Your task to perform on an android device: toggle translation in the chrome app Image 0: 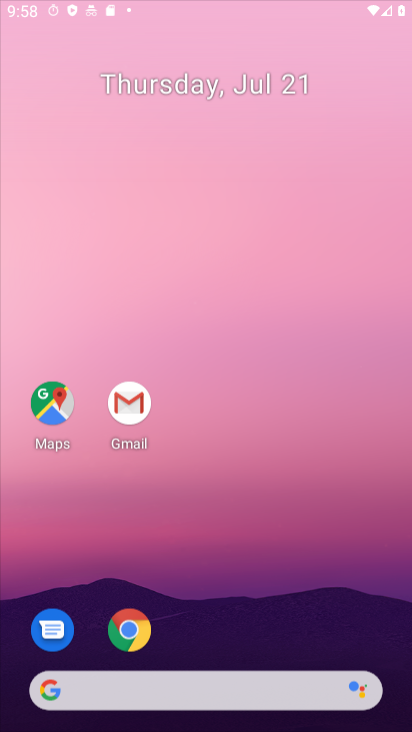
Step 0: click (332, 239)
Your task to perform on an android device: toggle translation in the chrome app Image 1: 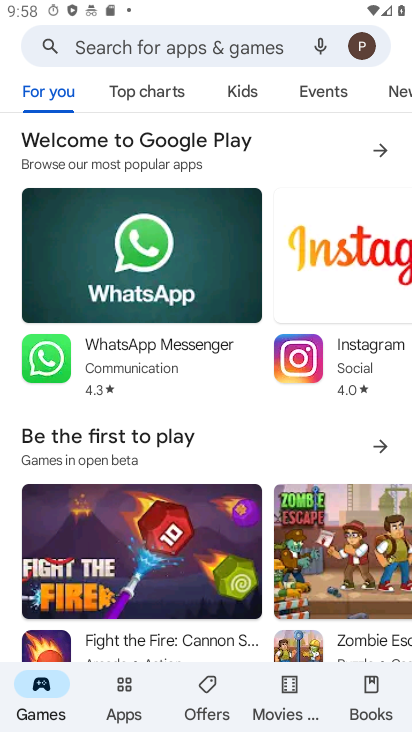
Step 1: press back button
Your task to perform on an android device: toggle translation in the chrome app Image 2: 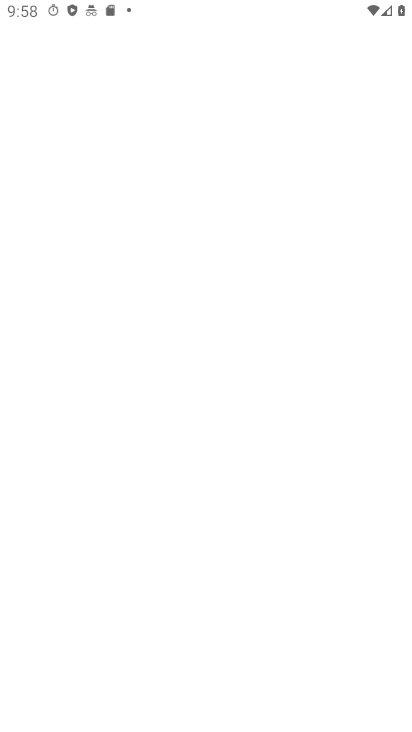
Step 2: press back button
Your task to perform on an android device: toggle translation in the chrome app Image 3: 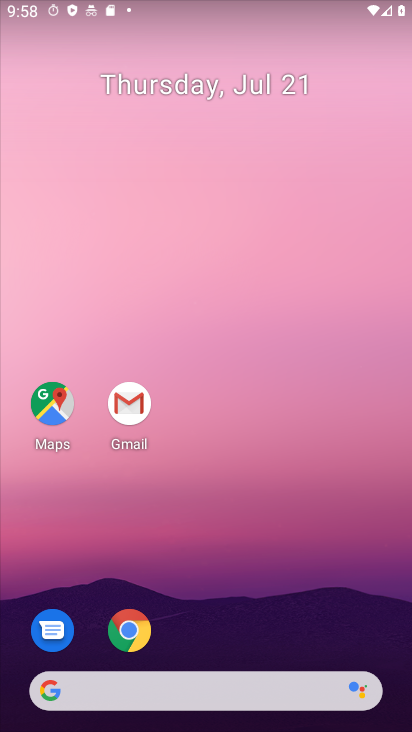
Step 3: drag from (266, 599) to (263, 268)
Your task to perform on an android device: toggle translation in the chrome app Image 4: 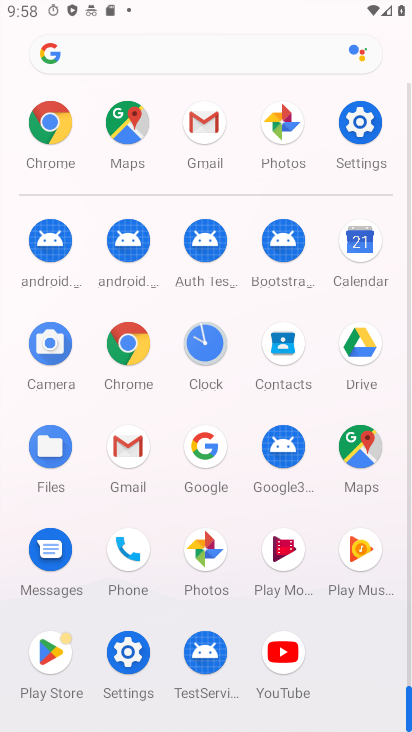
Step 4: click (64, 123)
Your task to perform on an android device: toggle translation in the chrome app Image 5: 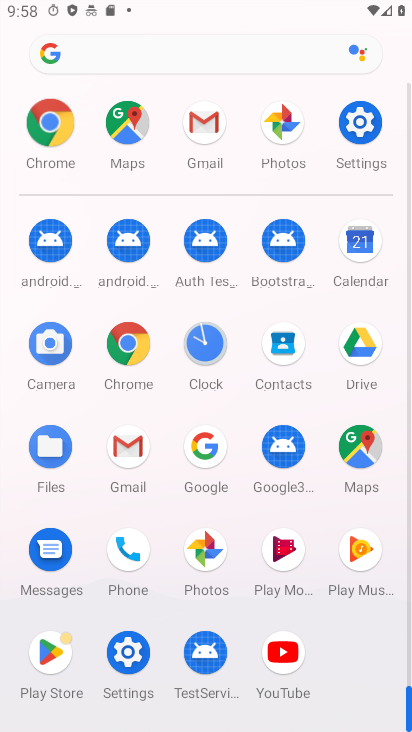
Step 5: click (67, 120)
Your task to perform on an android device: toggle translation in the chrome app Image 6: 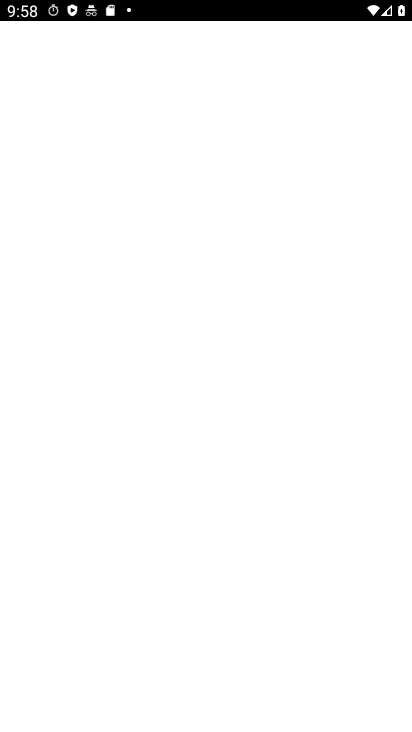
Step 6: click (75, 122)
Your task to perform on an android device: toggle translation in the chrome app Image 7: 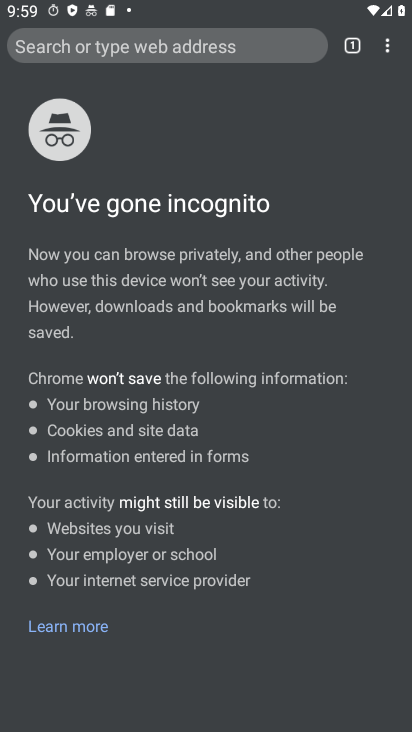
Step 7: drag from (390, 49) to (225, 340)
Your task to perform on an android device: toggle translation in the chrome app Image 8: 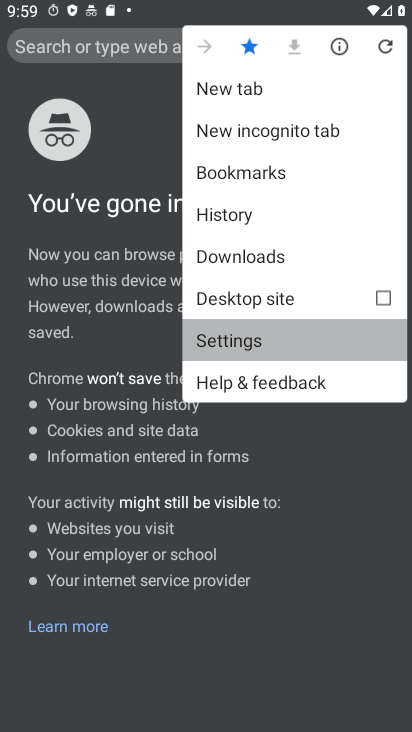
Step 8: click (231, 338)
Your task to perform on an android device: toggle translation in the chrome app Image 9: 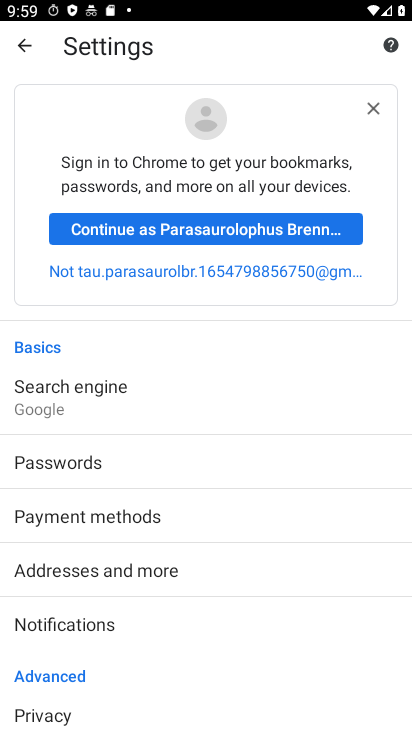
Step 9: drag from (119, 541) to (119, 113)
Your task to perform on an android device: toggle translation in the chrome app Image 10: 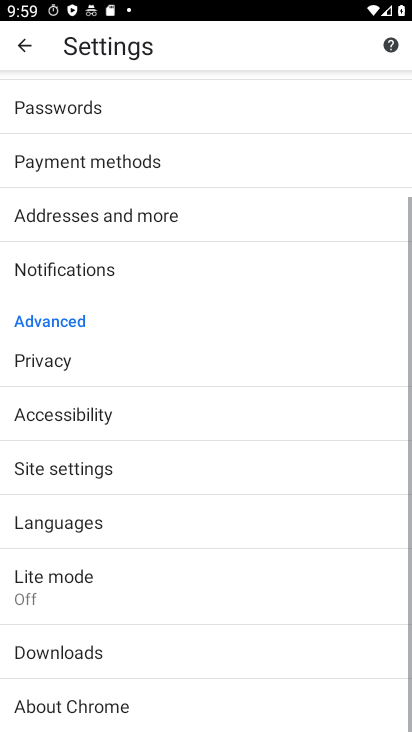
Step 10: drag from (198, 561) to (155, 110)
Your task to perform on an android device: toggle translation in the chrome app Image 11: 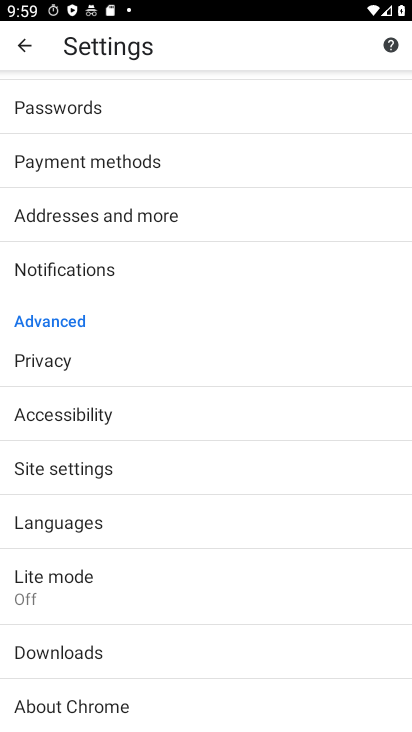
Step 11: click (101, 515)
Your task to perform on an android device: toggle translation in the chrome app Image 12: 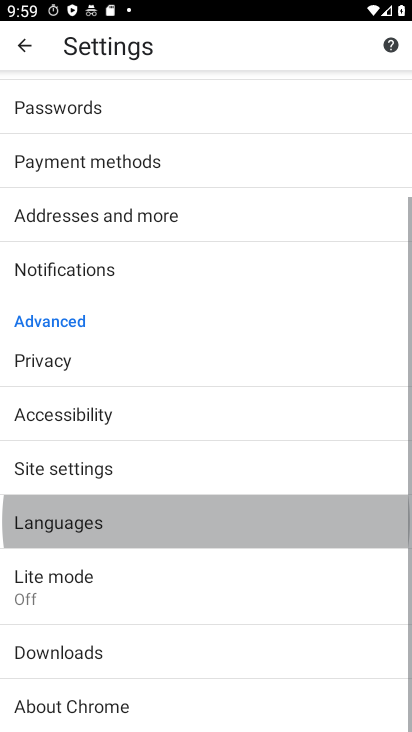
Step 12: click (108, 520)
Your task to perform on an android device: toggle translation in the chrome app Image 13: 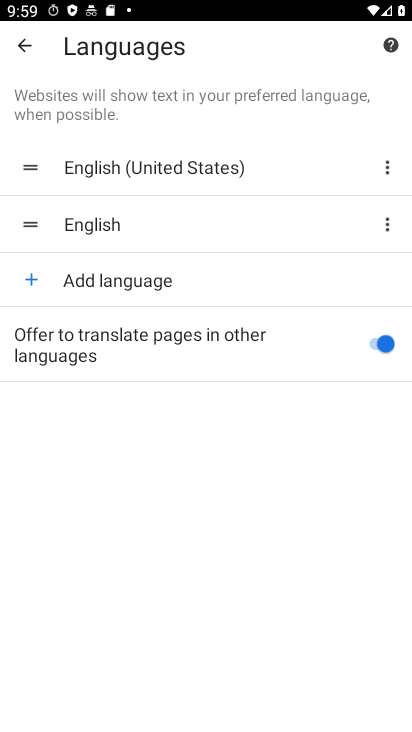
Step 13: click (384, 338)
Your task to perform on an android device: toggle translation in the chrome app Image 14: 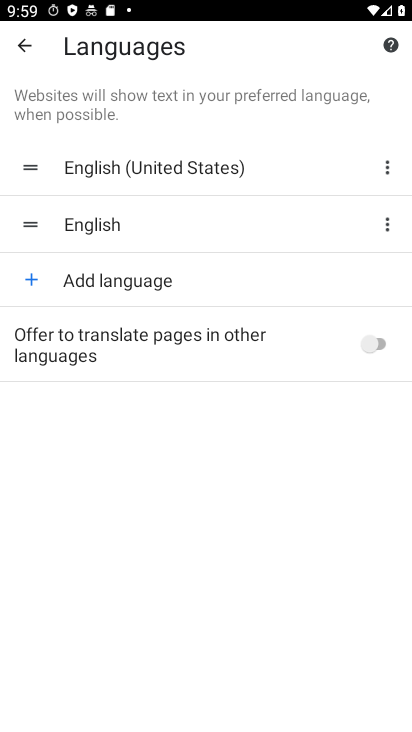
Step 14: task complete